Your task to perform on an android device: What is the recent news? Image 0: 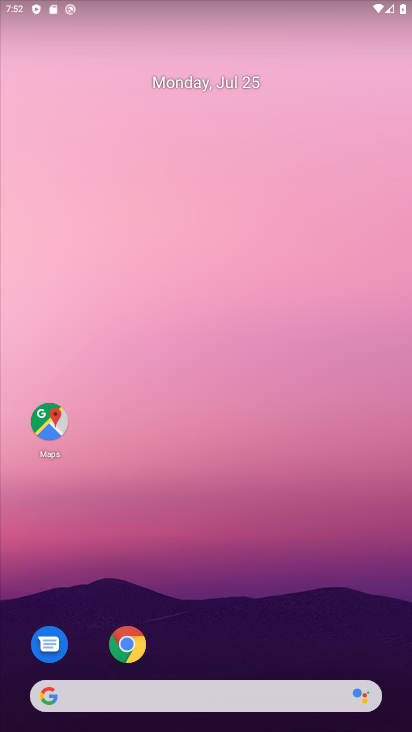
Step 0: click (181, 653)
Your task to perform on an android device: What is the recent news? Image 1: 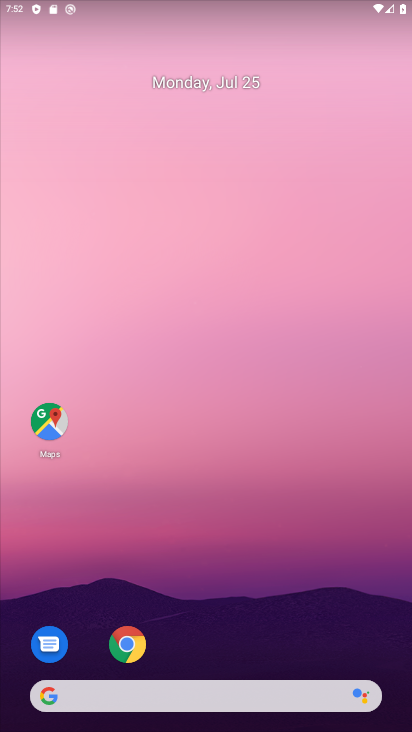
Step 1: click (153, 698)
Your task to perform on an android device: What is the recent news? Image 2: 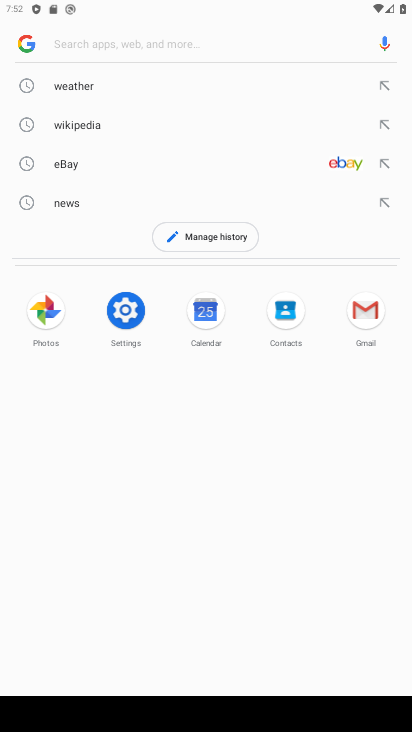
Step 2: type "recent news"
Your task to perform on an android device: What is the recent news? Image 3: 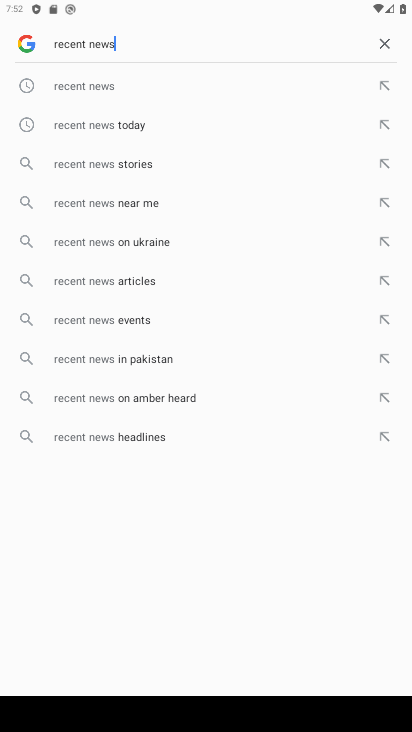
Step 3: click (106, 86)
Your task to perform on an android device: What is the recent news? Image 4: 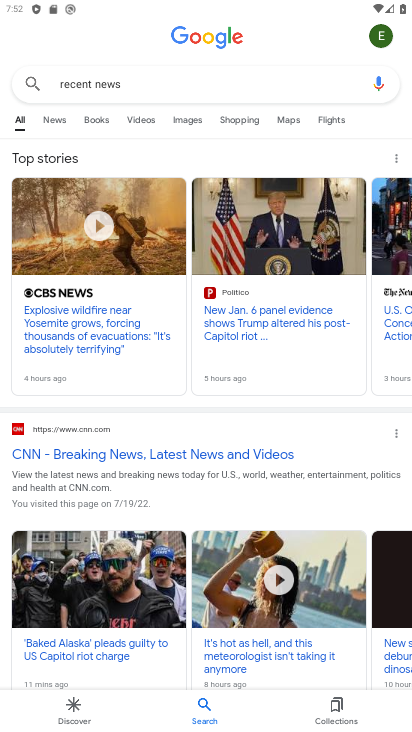
Step 4: task complete